Your task to perform on an android device: What's the weather going to be tomorrow? Image 0: 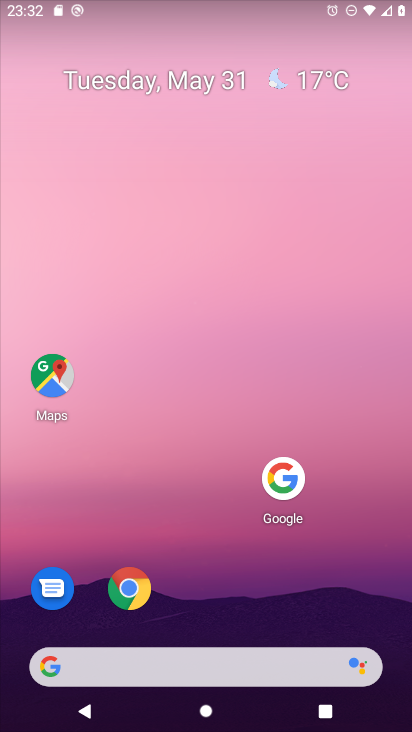
Step 0: click (307, 80)
Your task to perform on an android device: What's the weather going to be tomorrow? Image 1: 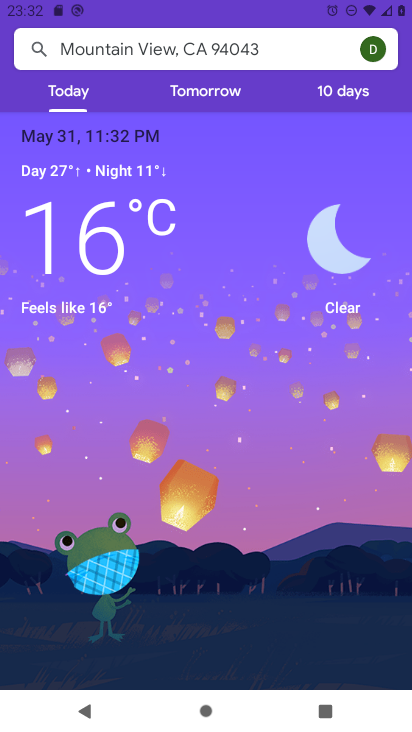
Step 1: click (222, 86)
Your task to perform on an android device: What's the weather going to be tomorrow? Image 2: 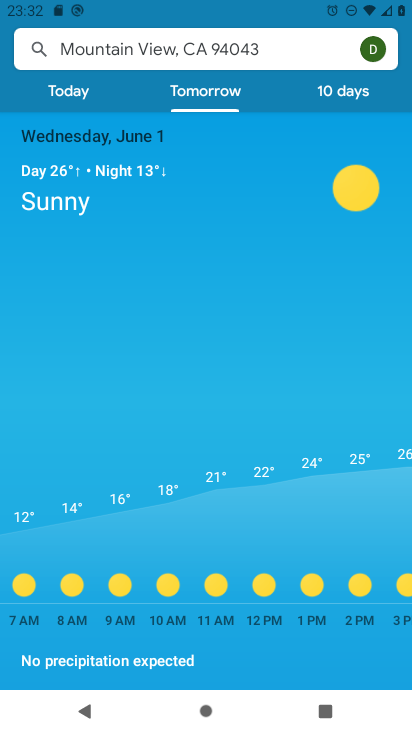
Step 2: task complete